Your task to perform on an android device: Search for vegetarian restaurants on Maps Image 0: 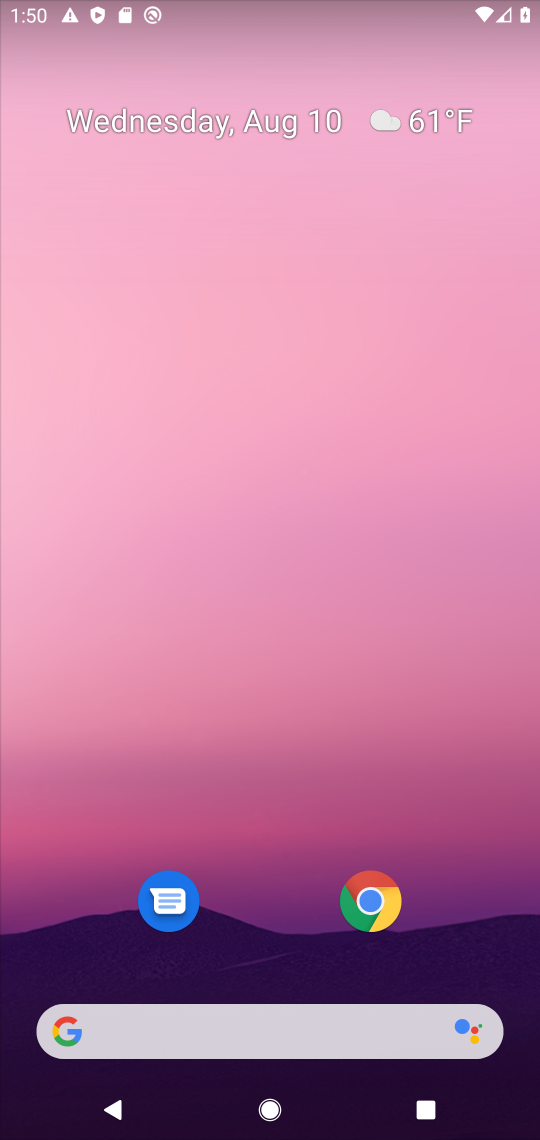
Step 0: drag from (281, 947) to (175, 104)
Your task to perform on an android device: Search for vegetarian restaurants on Maps Image 1: 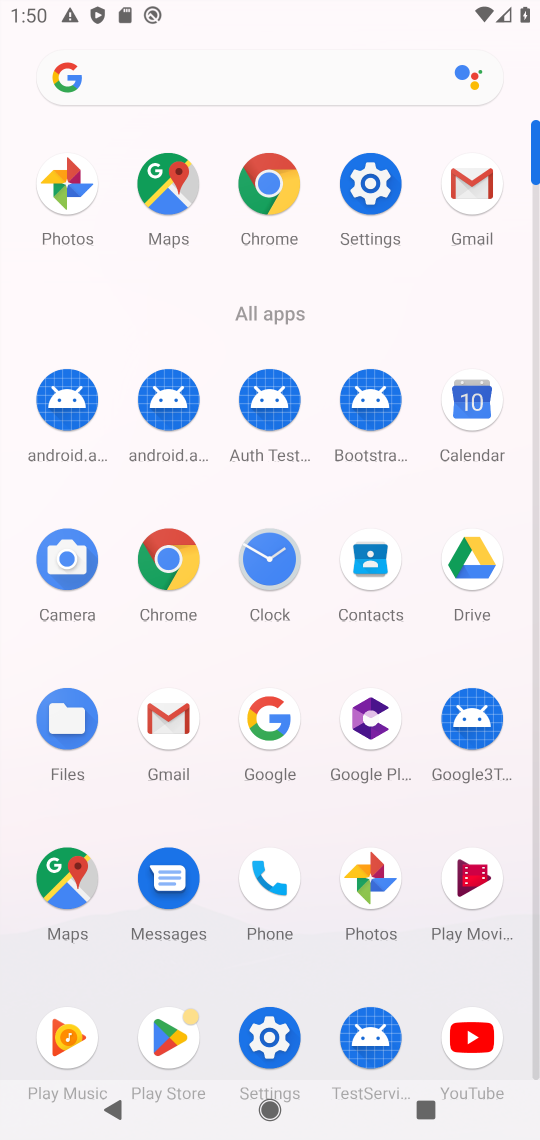
Step 1: click (173, 195)
Your task to perform on an android device: Search for vegetarian restaurants on Maps Image 2: 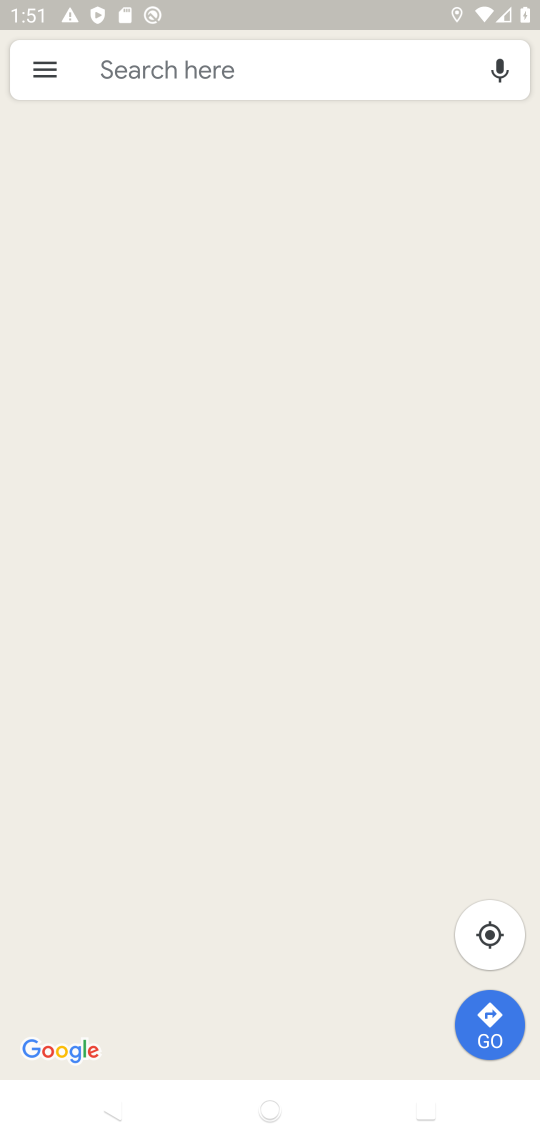
Step 2: click (147, 63)
Your task to perform on an android device: Search for vegetarian restaurants on Maps Image 3: 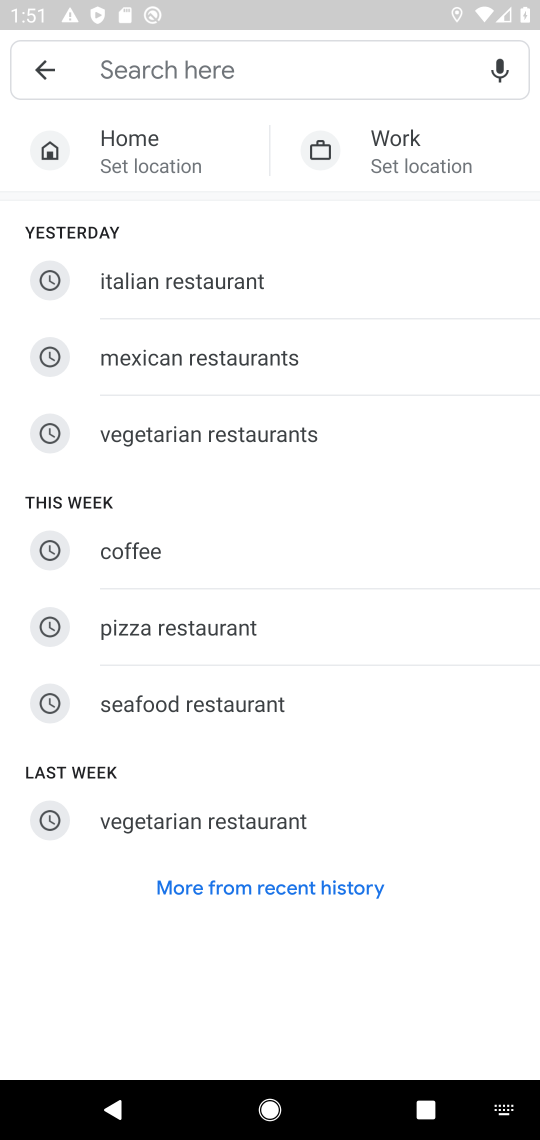
Step 3: type "vegetarian restaurants"
Your task to perform on an android device: Search for vegetarian restaurants on Maps Image 4: 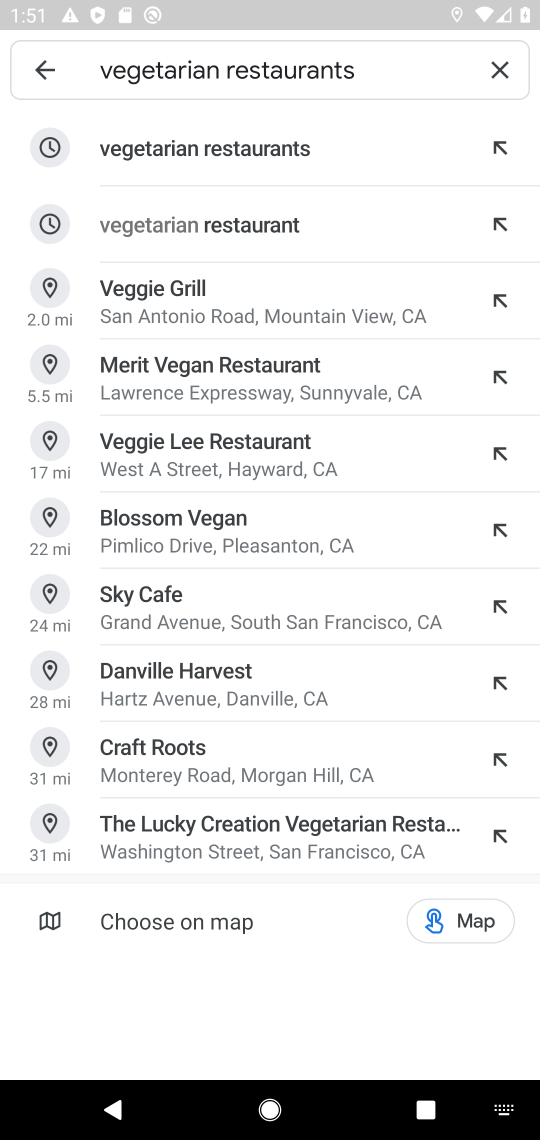
Step 4: click (210, 150)
Your task to perform on an android device: Search for vegetarian restaurants on Maps Image 5: 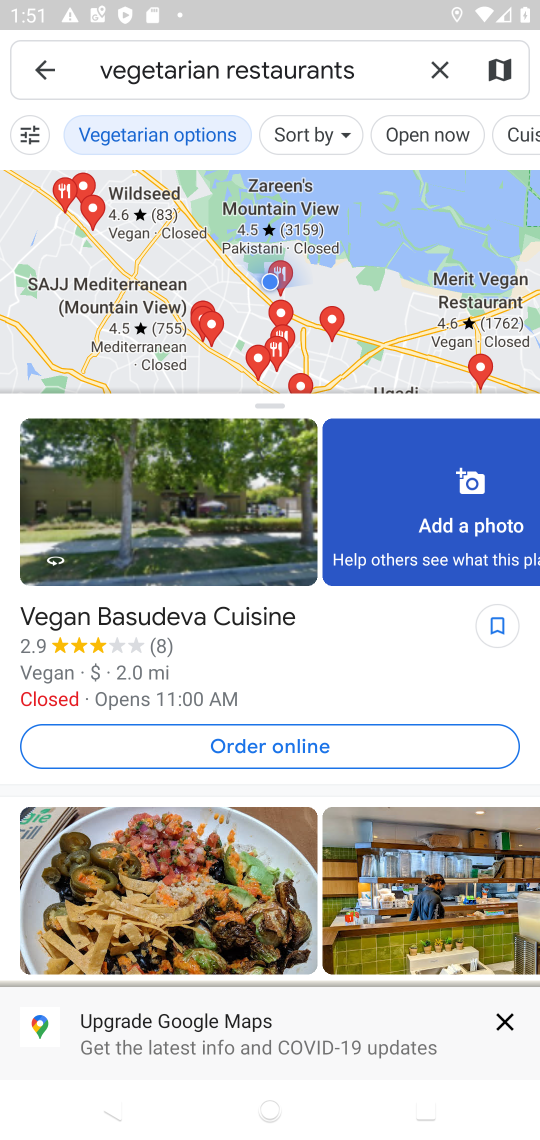
Step 5: task complete